Your task to perform on an android device: Clear the cart on target.com. Image 0: 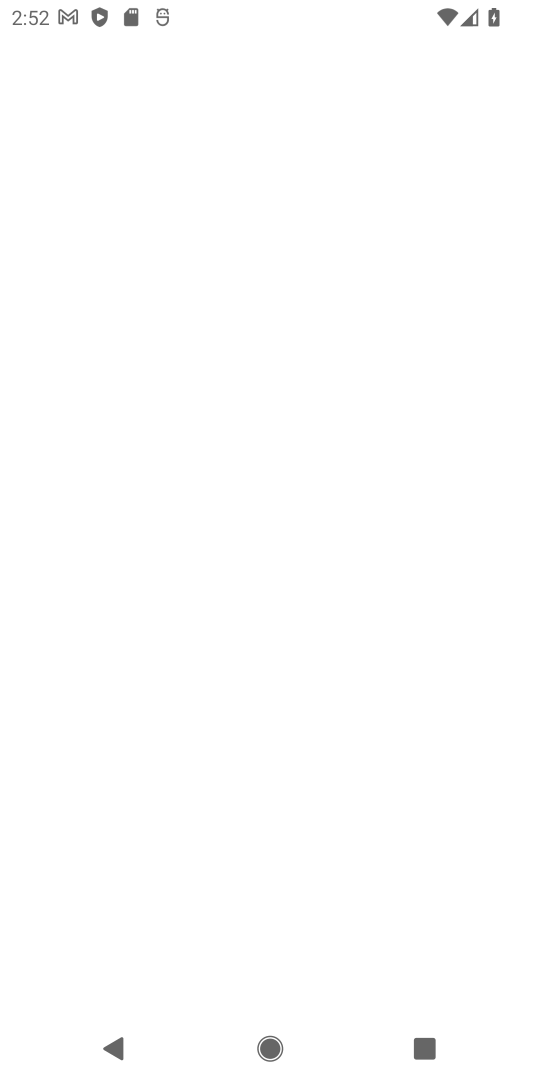
Step 0: press home button
Your task to perform on an android device: Clear the cart on target.com. Image 1: 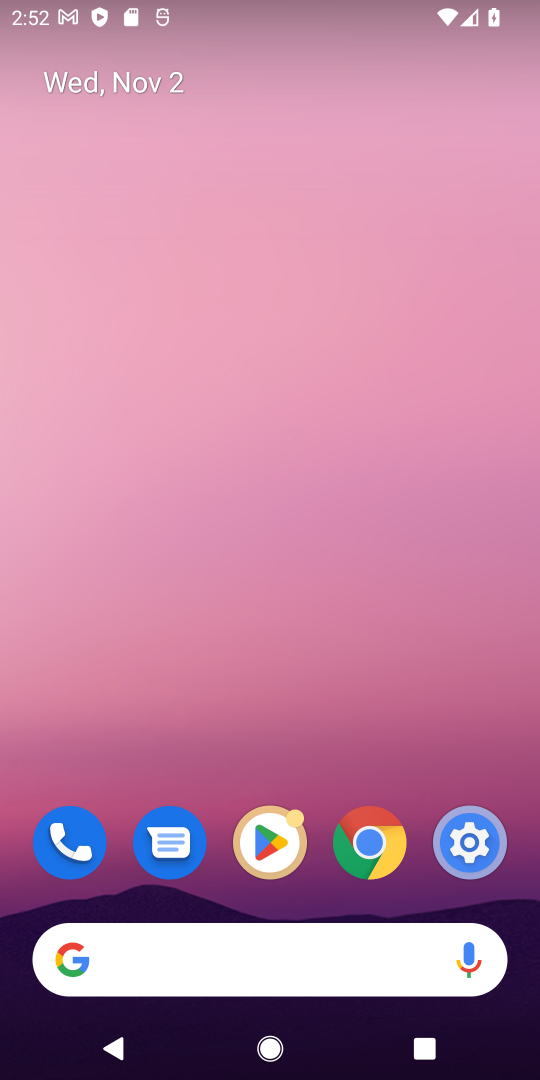
Step 1: click (200, 946)
Your task to perform on an android device: Clear the cart on target.com. Image 2: 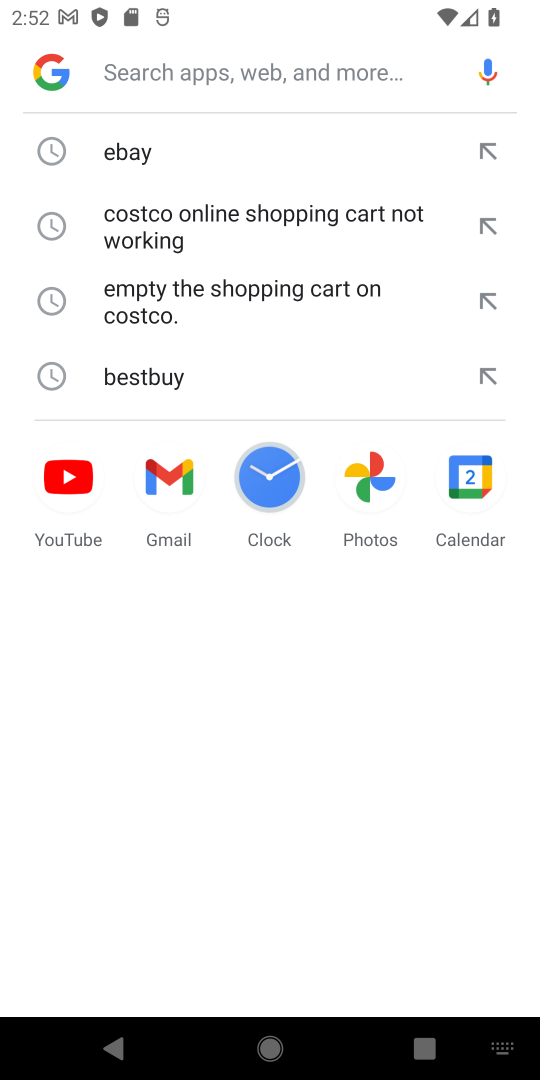
Step 2: type "target"
Your task to perform on an android device: Clear the cart on target.com. Image 3: 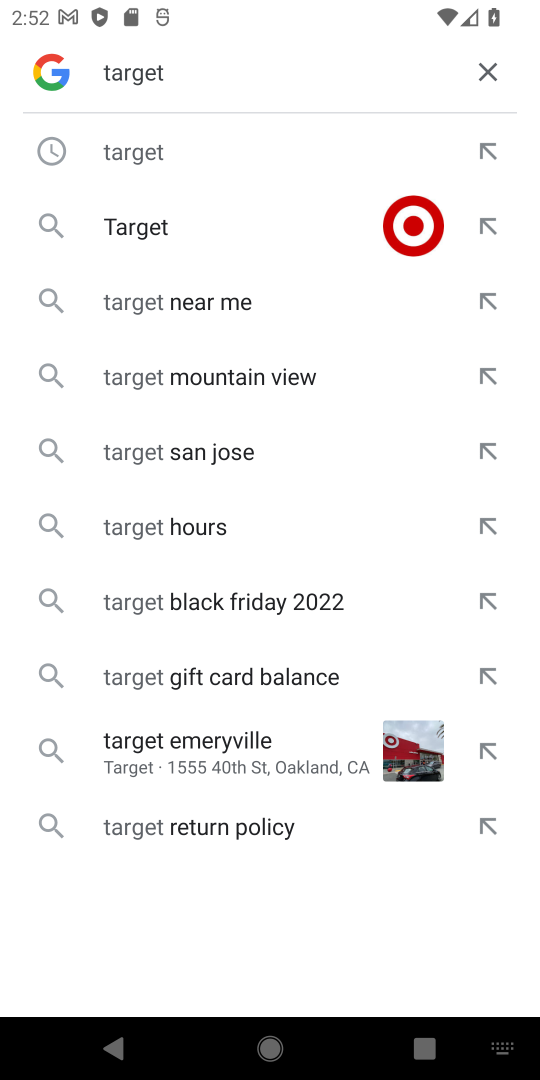
Step 3: click (121, 211)
Your task to perform on an android device: Clear the cart on target.com. Image 4: 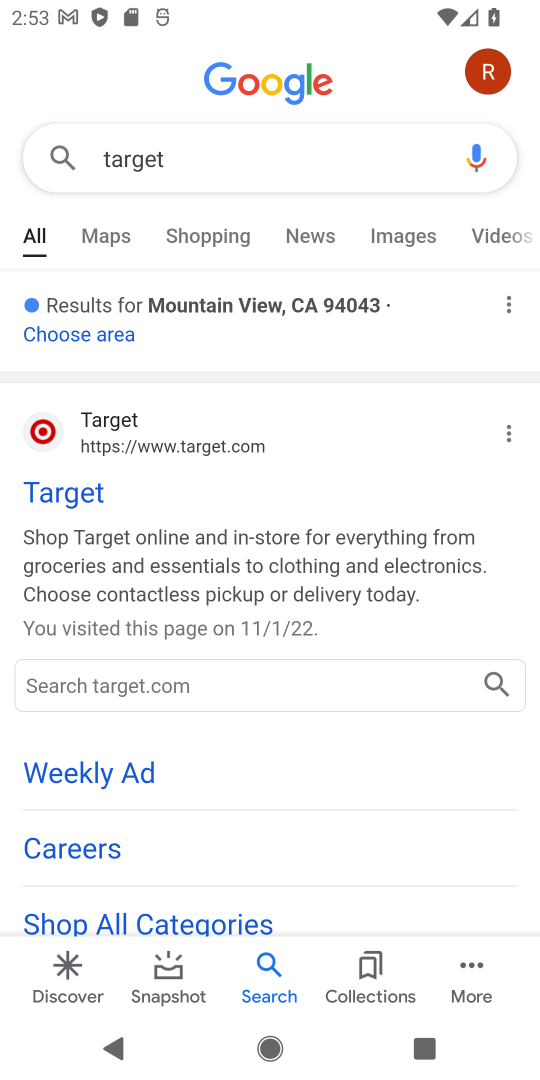
Step 4: click (58, 495)
Your task to perform on an android device: Clear the cart on target.com. Image 5: 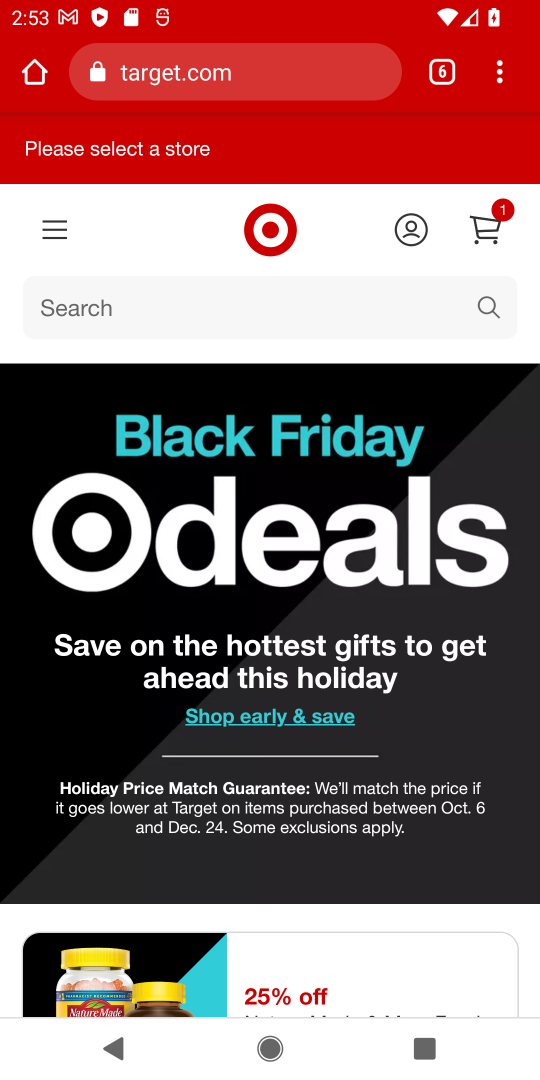
Step 5: click (493, 226)
Your task to perform on an android device: Clear the cart on target.com. Image 6: 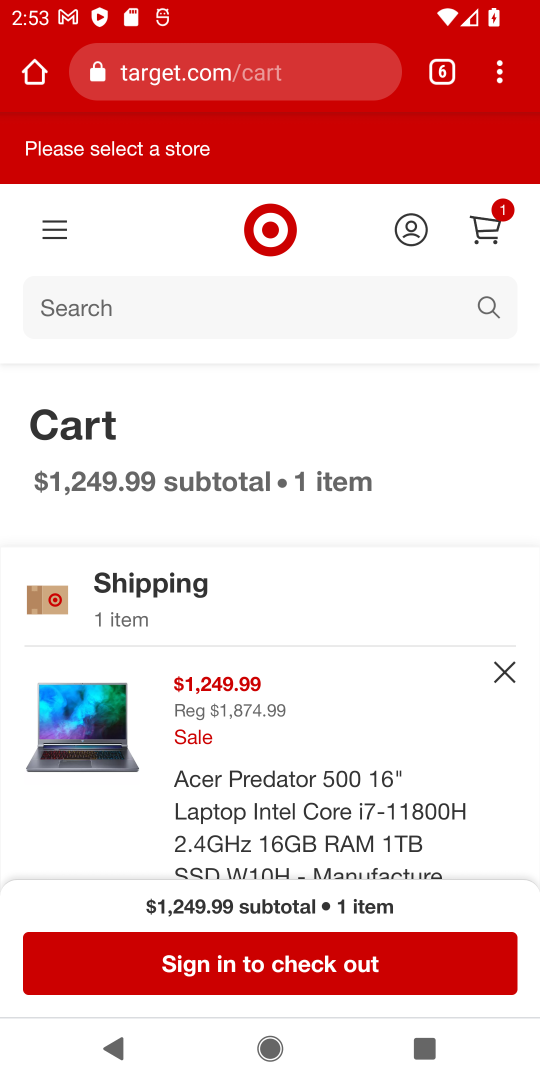
Step 6: click (505, 678)
Your task to perform on an android device: Clear the cart on target.com. Image 7: 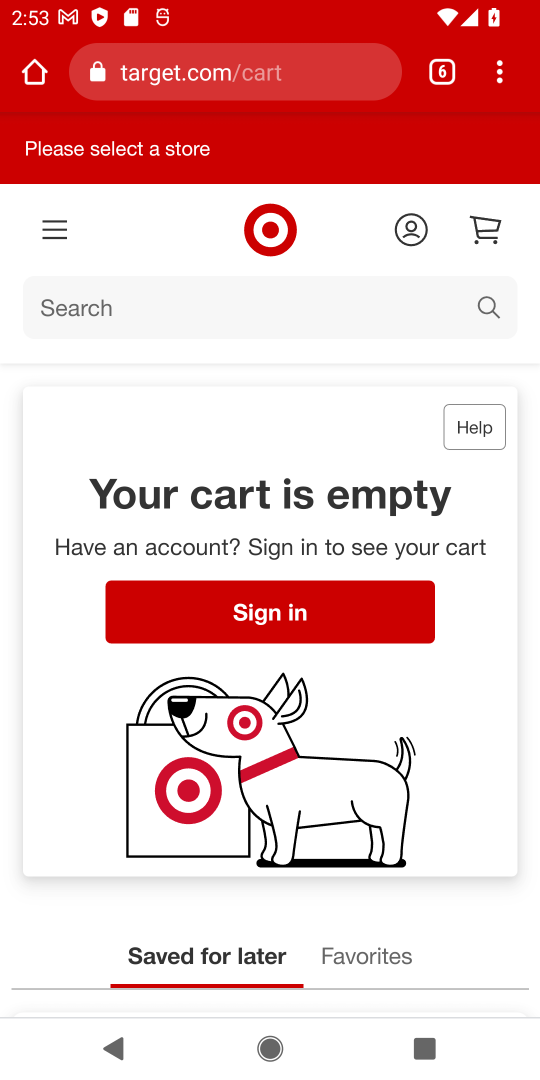
Step 7: task complete